Your task to perform on an android device: Go to battery settings Image 0: 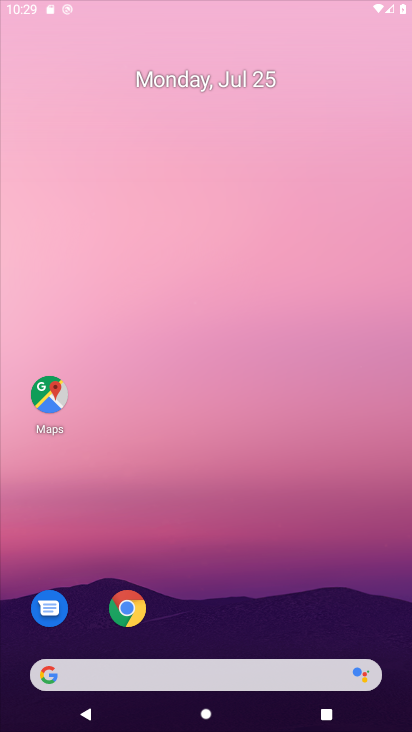
Step 0: click (242, 218)
Your task to perform on an android device: Go to battery settings Image 1: 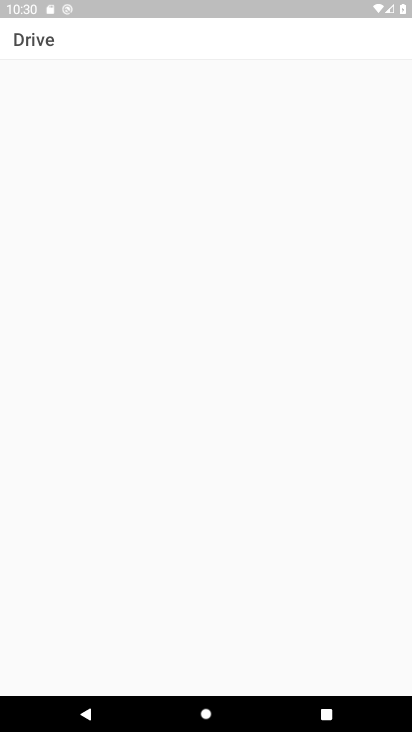
Step 1: drag from (200, 662) to (247, 287)
Your task to perform on an android device: Go to battery settings Image 2: 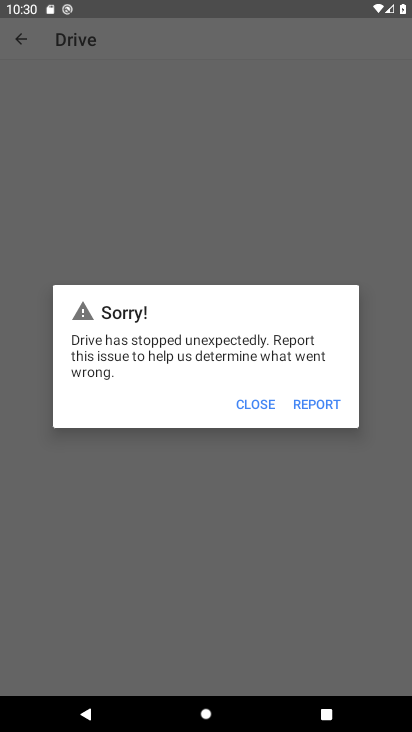
Step 2: press home button
Your task to perform on an android device: Go to battery settings Image 3: 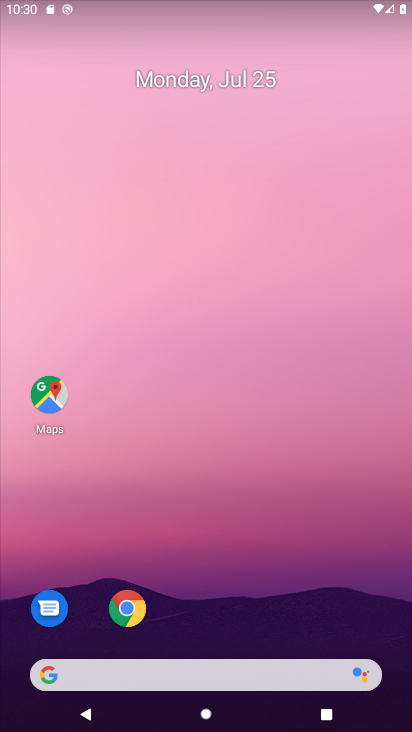
Step 3: drag from (191, 632) to (212, 158)
Your task to perform on an android device: Go to battery settings Image 4: 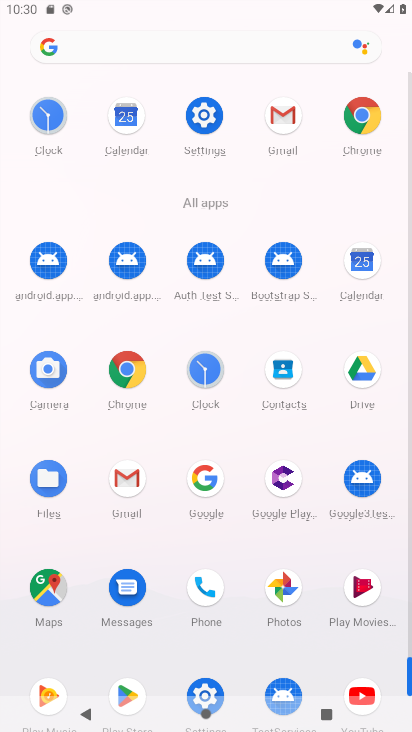
Step 4: click (197, 105)
Your task to perform on an android device: Go to battery settings Image 5: 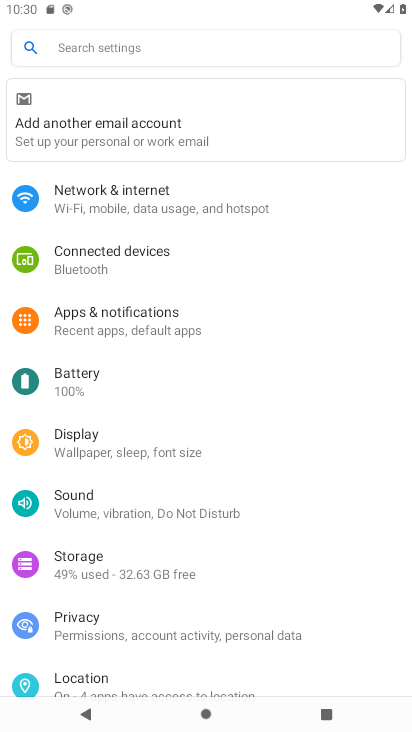
Step 5: click (88, 374)
Your task to perform on an android device: Go to battery settings Image 6: 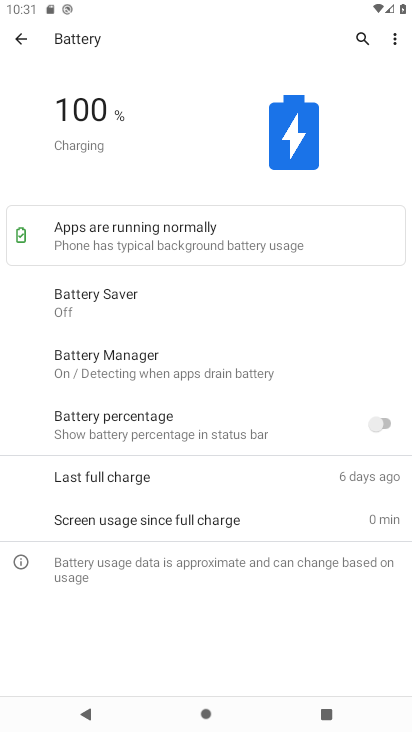
Step 6: task complete